Your task to perform on an android device: Open the stopwatch Image 0: 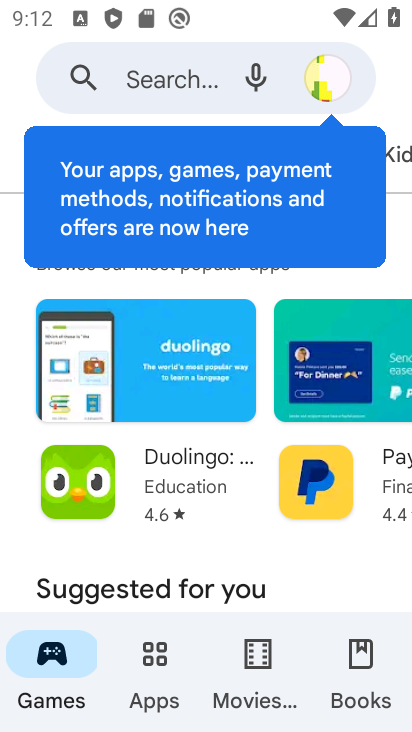
Step 0: press home button
Your task to perform on an android device: Open the stopwatch Image 1: 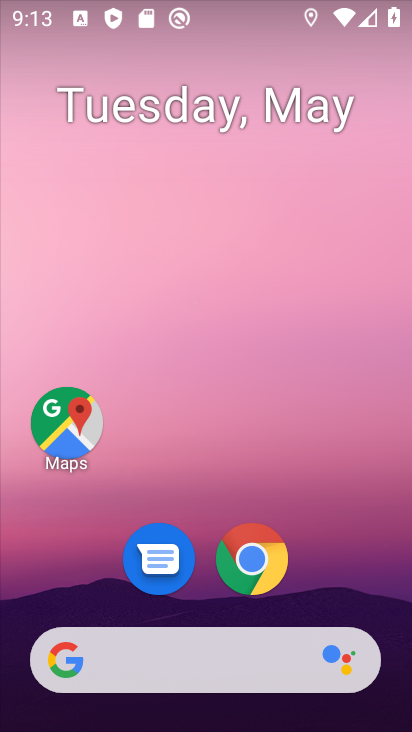
Step 1: drag from (202, 641) to (233, 33)
Your task to perform on an android device: Open the stopwatch Image 2: 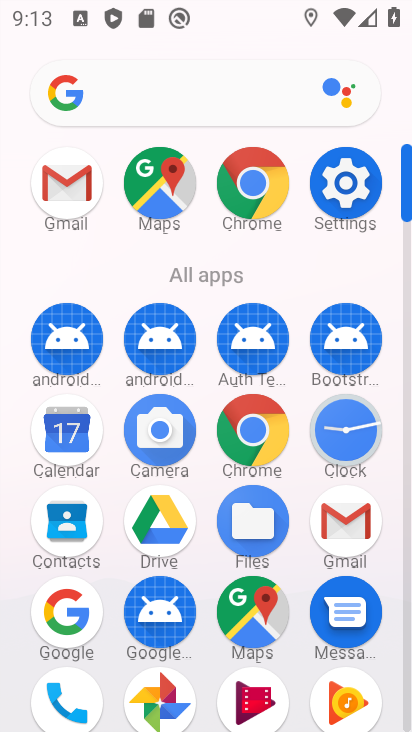
Step 2: click (346, 445)
Your task to perform on an android device: Open the stopwatch Image 3: 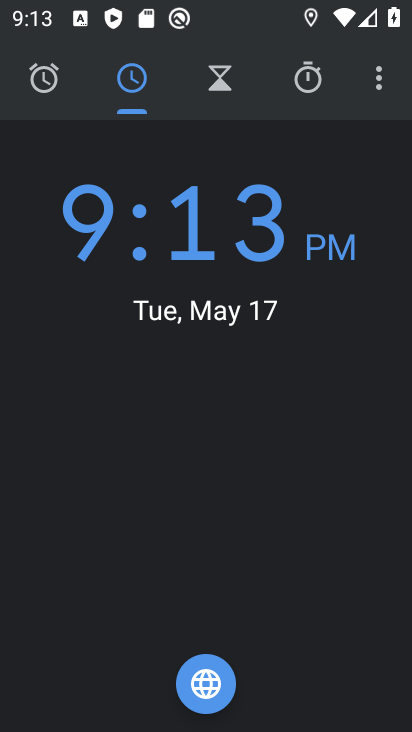
Step 3: click (296, 84)
Your task to perform on an android device: Open the stopwatch Image 4: 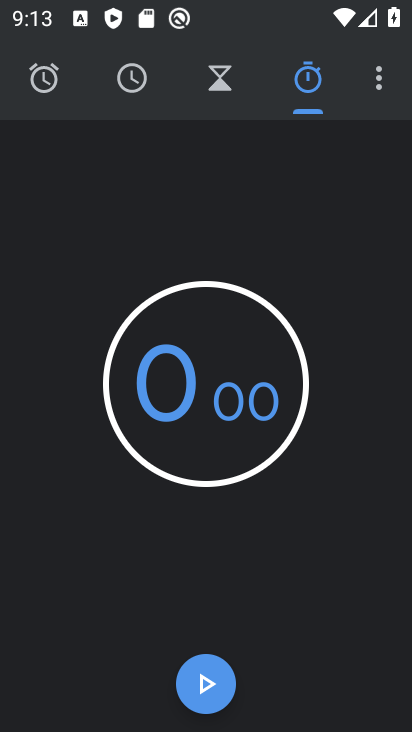
Step 4: task complete